Your task to perform on an android device: What's the weather? Image 0: 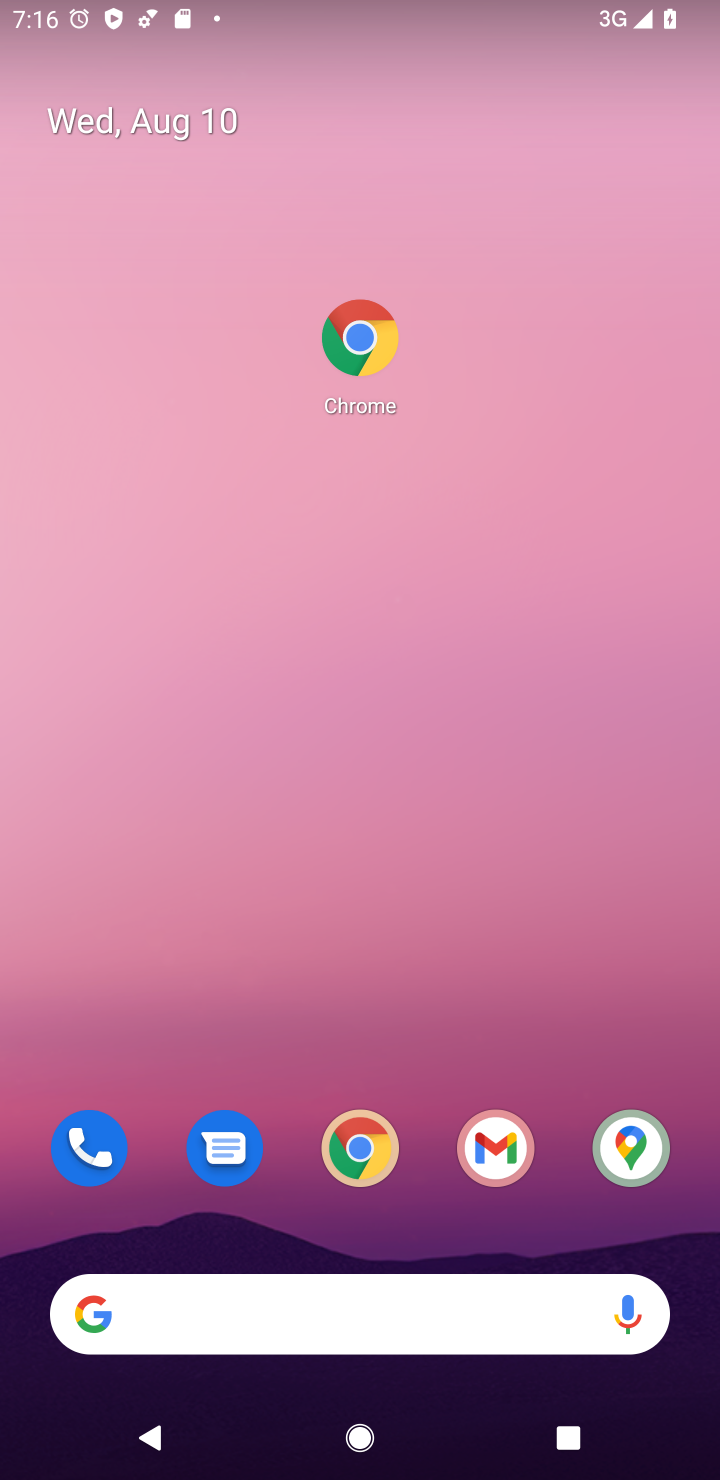
Step 0: click (397, 1309)
Your task to perform on an android device: What's the weather? Image 1: 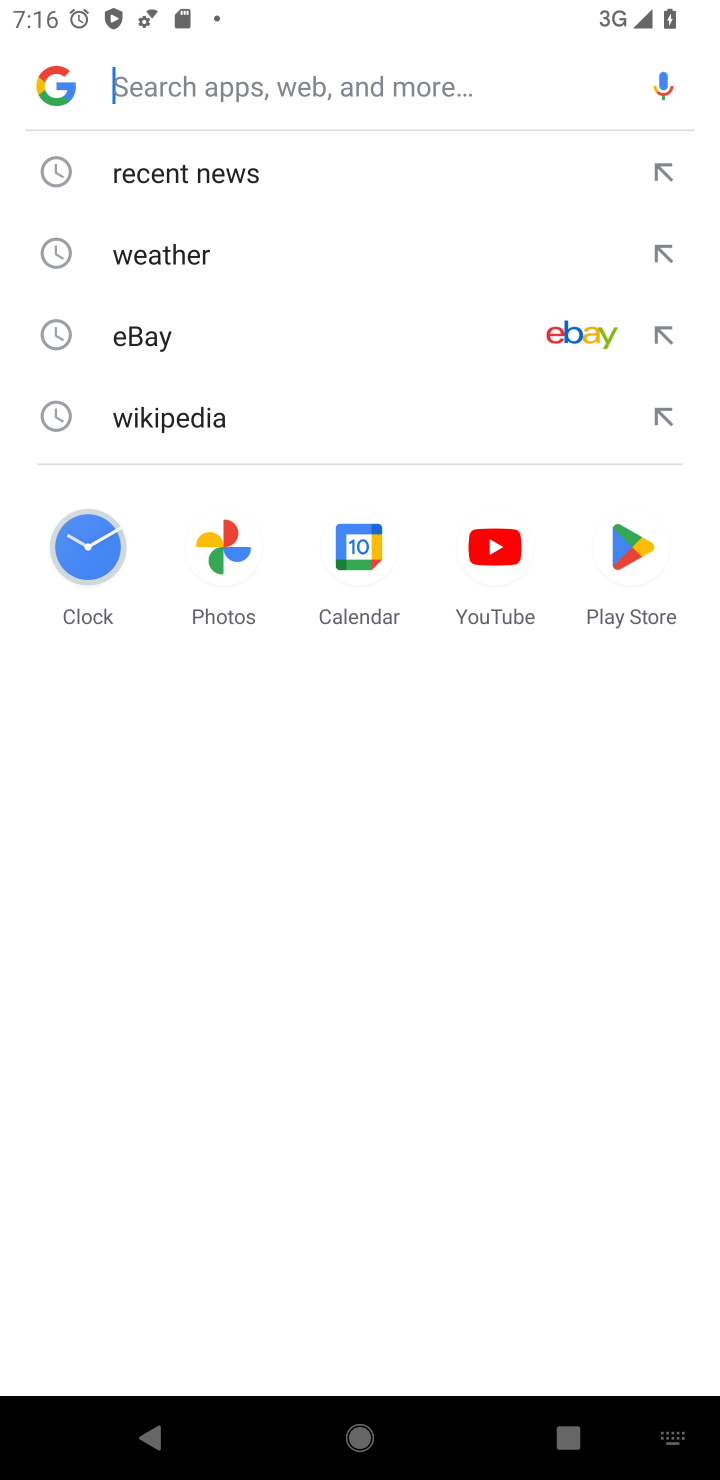
Step 1: click (156, 255)
Your task to perform on an android device: What's the weather? Image 2: 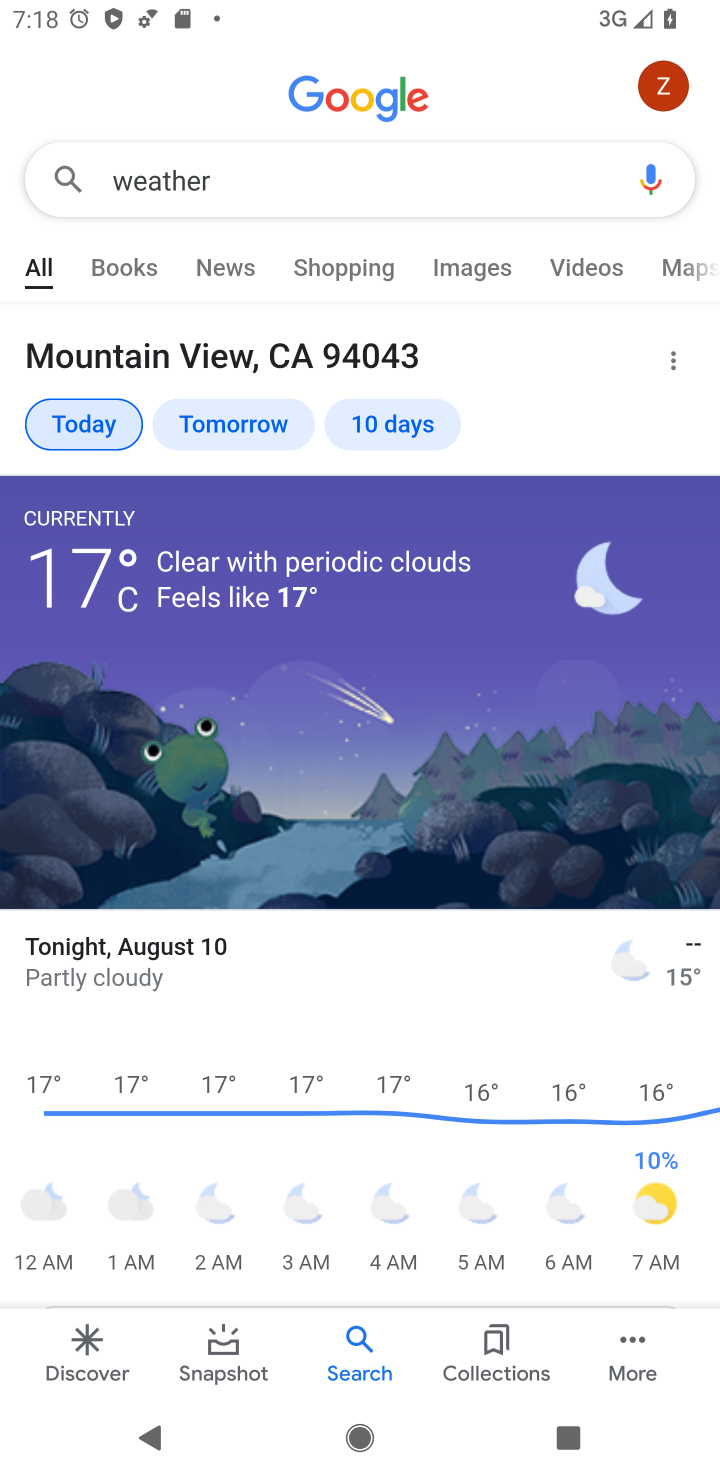
Step 2: task complete